Your task to perform on an android device: toggle location history Image 0: 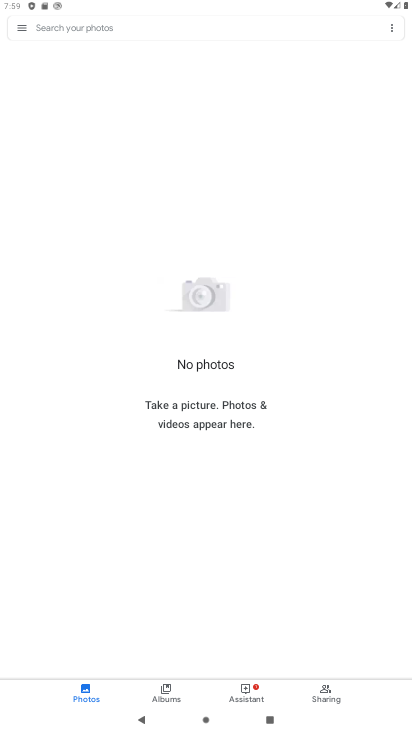
Step 0: press home button
Your task to perform on an android device: toggle location history Image 1: 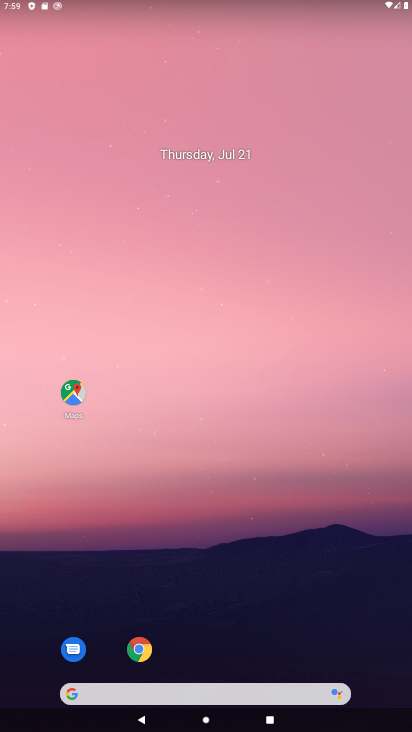
Step 1: drag from (225, 644) to (25, 42)
Your task to perform on an android device: toggle location history Image 2: 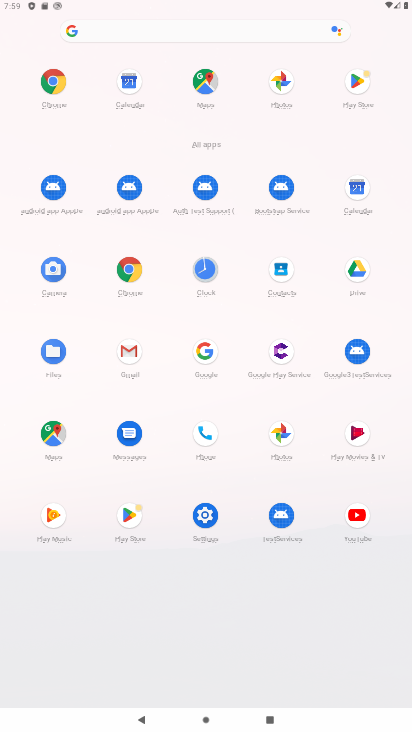
Step 2: click (209, 519)
Your task to perform on an android device: toggle location history Image 3: 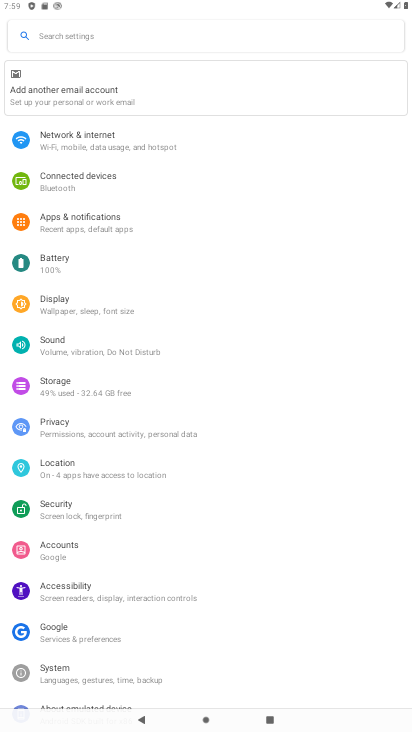
Step 3: click (82, 475)
Your task to perform on an android device: toggle location history Image 4: 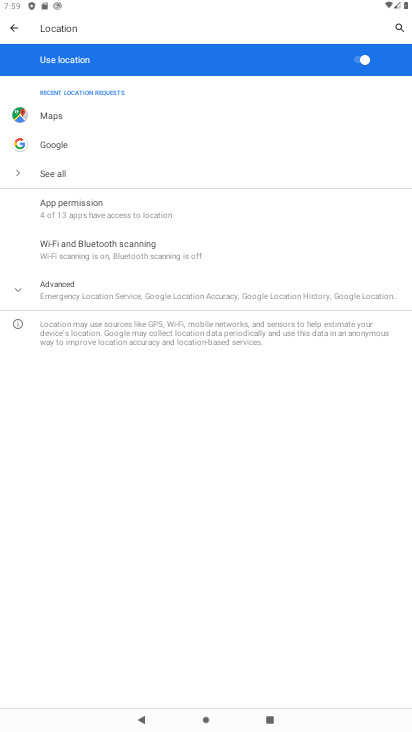
Step 4: click (60, 289)
Your task to perform on an android device: toggle location history Image 5: 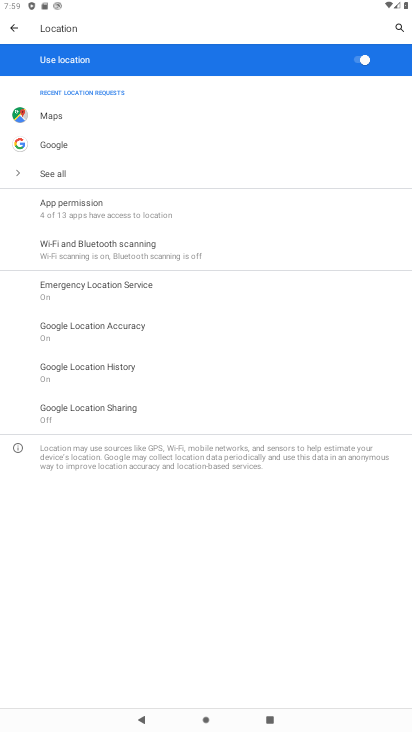
Step 5: click (123, 371)
Your task to perform on an android device: toggle location history Image 6: 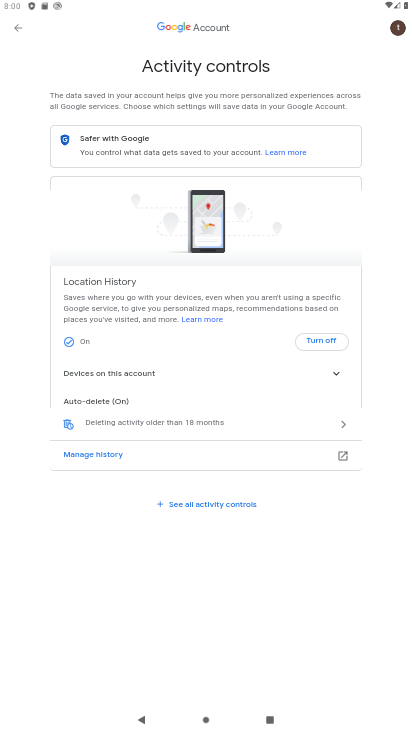
Step 6: click (326, 341)
Your task to perform on an android device: toggle location history Image 7: 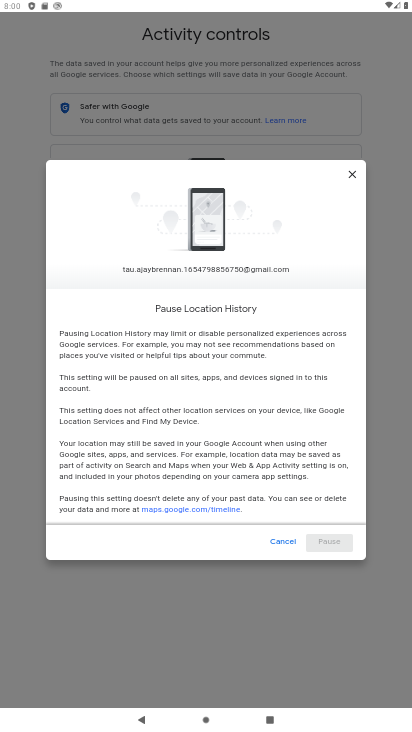
Step 7: drag from (258, 465) to (308, 70)
Your task to perform on an android device: toggle location history Image 8: 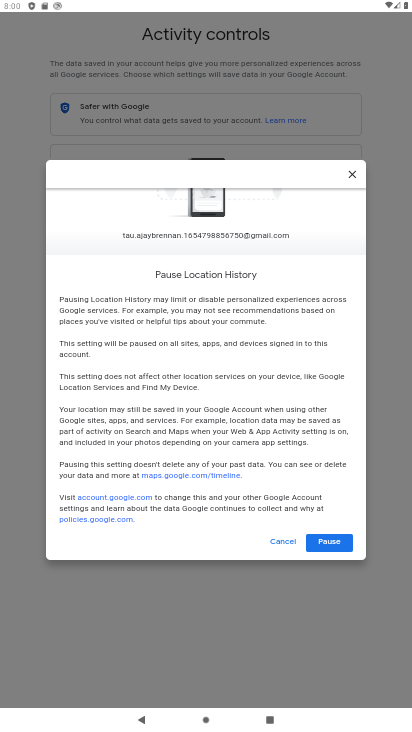
Step 8: click (334, 548)
Your task to perform on an android device: toggle location history Image 9: 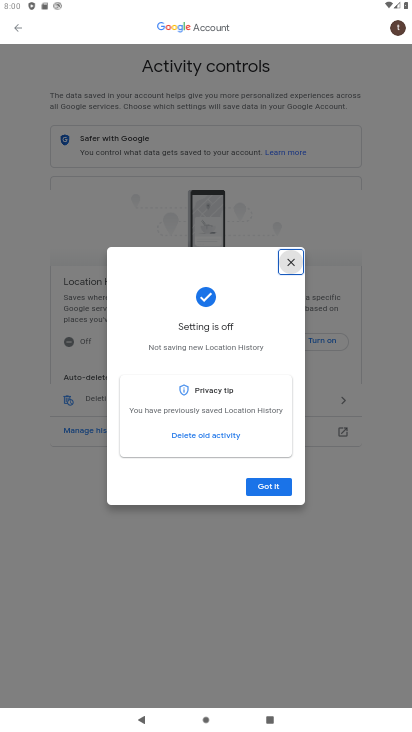
Step 9: click (273, 484)
Your task to perform on an android device: toggle location history Image 10: 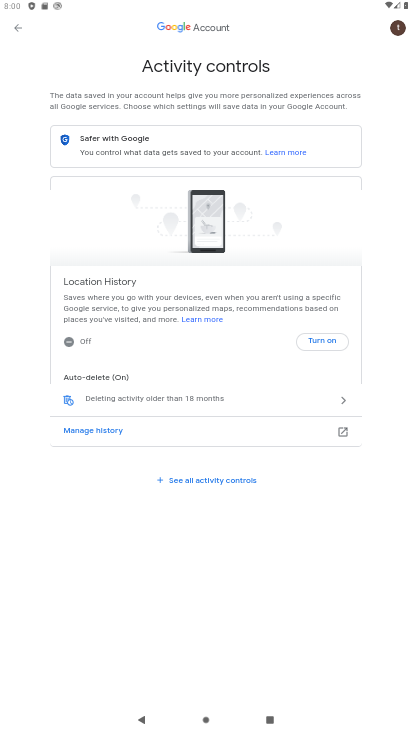
Step 10: task complete